Your task to perform on an android device: Open the phone app and click the voicemail tab. Image 0: 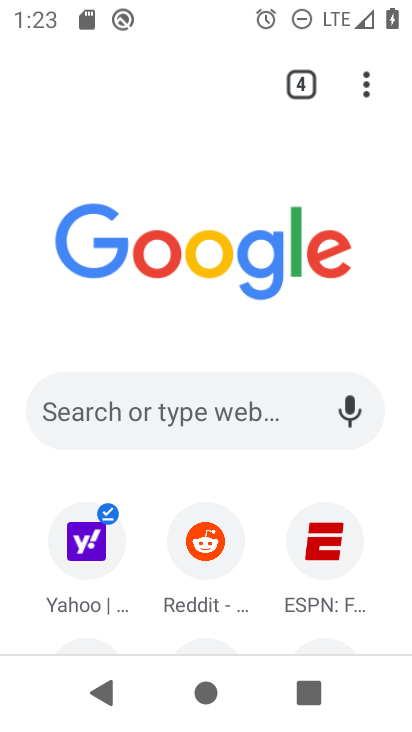
Step 0: press home button
Your task to perform on an android device: Open the phone app and click the voicemail tab. Image 1: 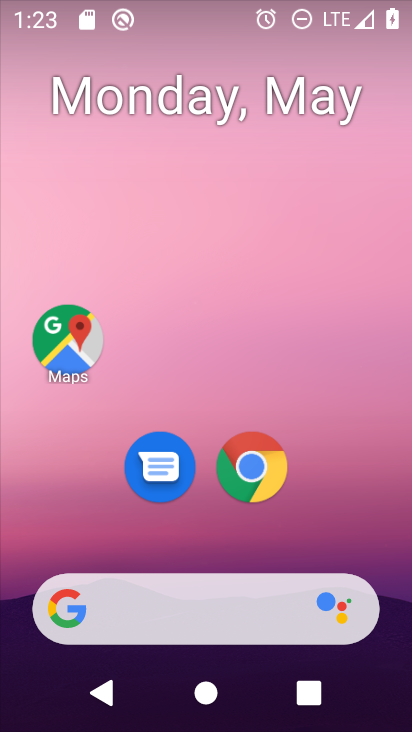
Step 1: drag from (333, 557) to (339, 5)
Your task to perform on an android device: Open the phone app and click the voicemail tab. Image 2: 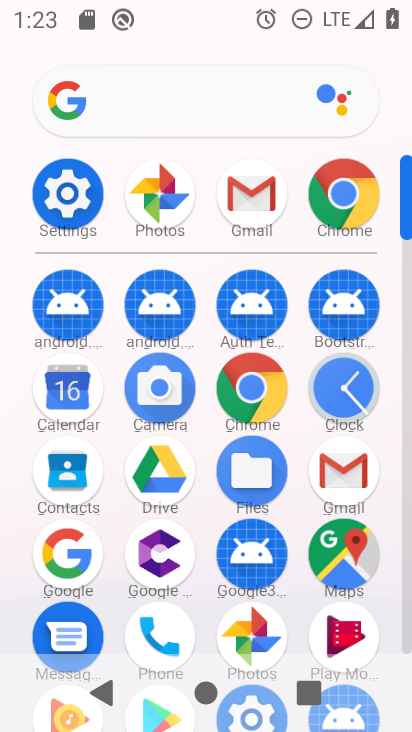
Step 2: click (156, 627)
Your task to perform on an android device: Open the phone app and click the voicemail tab. Image 3: 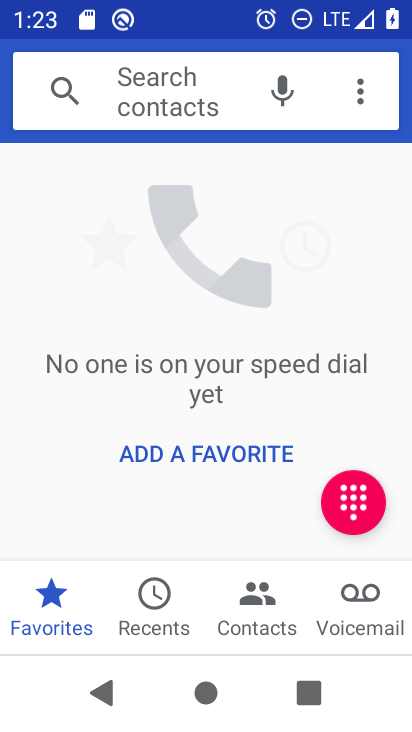
Step 3: click (345, 612)
Your task to perform on an android device: Open the phone app and click the voicemail tab. Image 4: 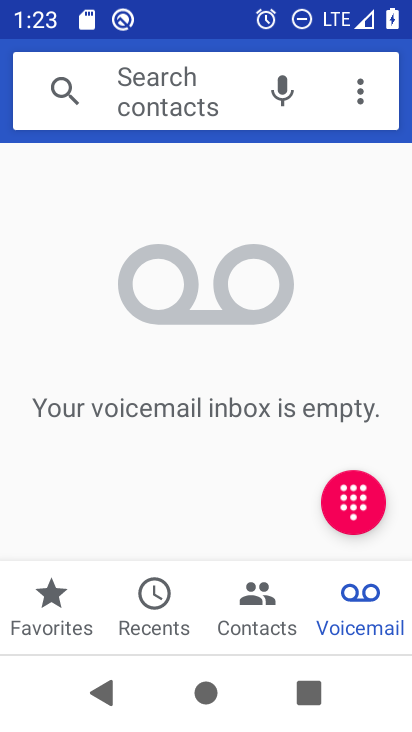
Step 4: task complete